Your task to perform on an android device: uninstall "DuckDuckGo Privacy Browser" Image 0: 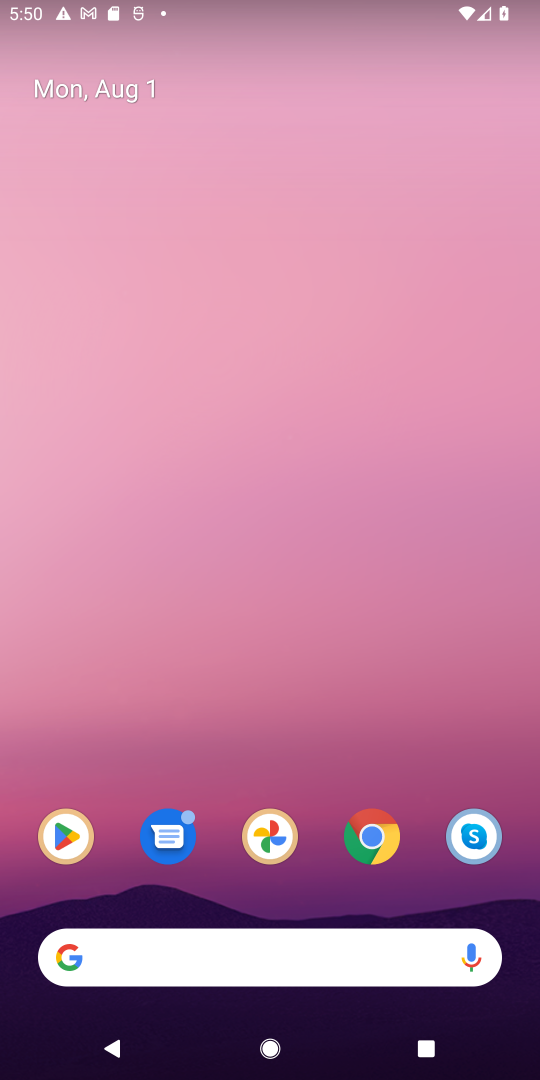
Step 0: press home button
Your task to perform on an android device: uninstall "DuckDuckGo Privacy Browser" Image 1: 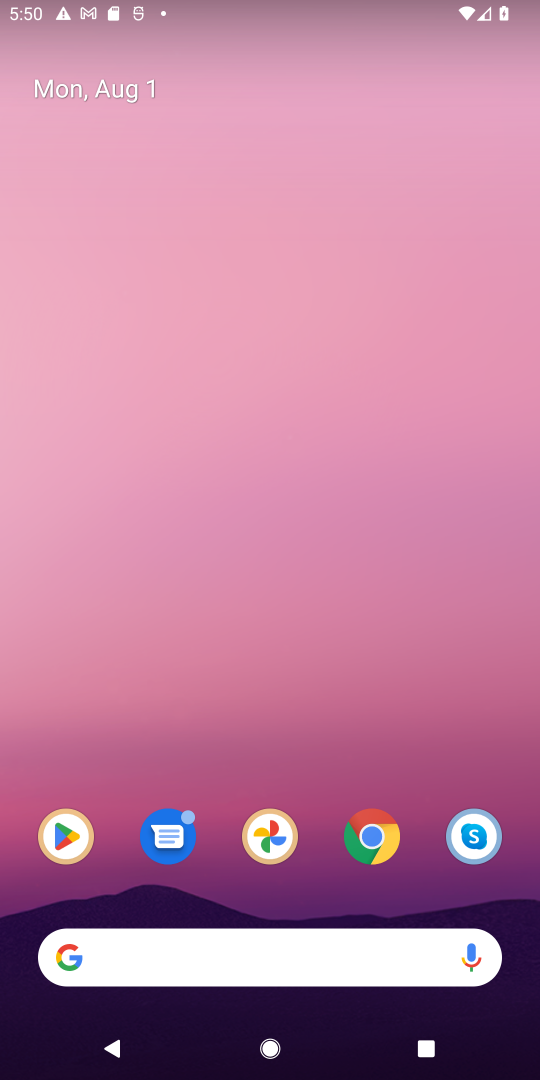
Step 1: click (56, 830)
Your task to perform on an android device: uninstall "DuckDuckGo Privacy Browser" Image 2: 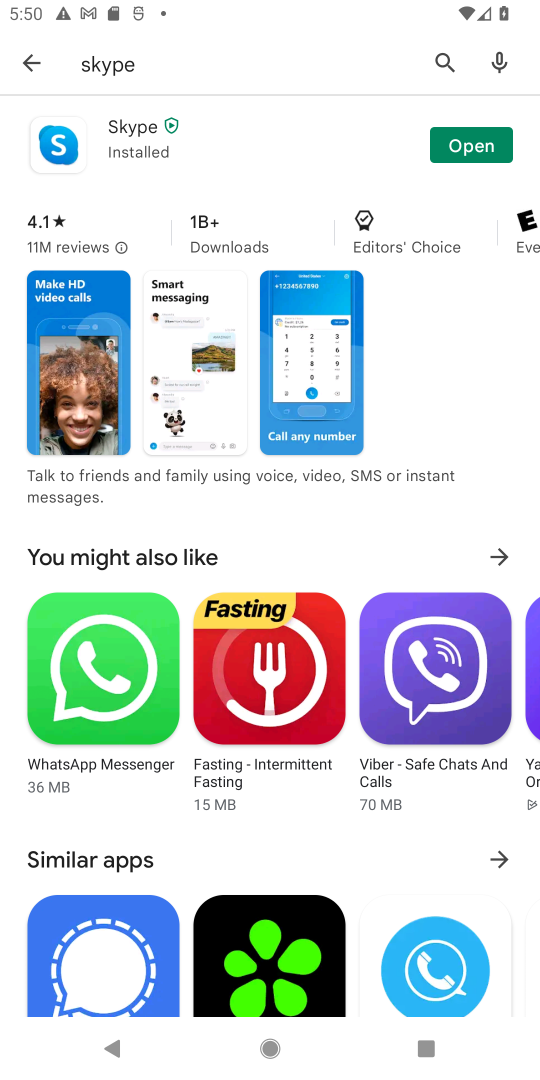
Step 2: click (439, 49)
Your task to perform on an android device: uninstall "DuckDuckGo Privacy Browser" Image 3: 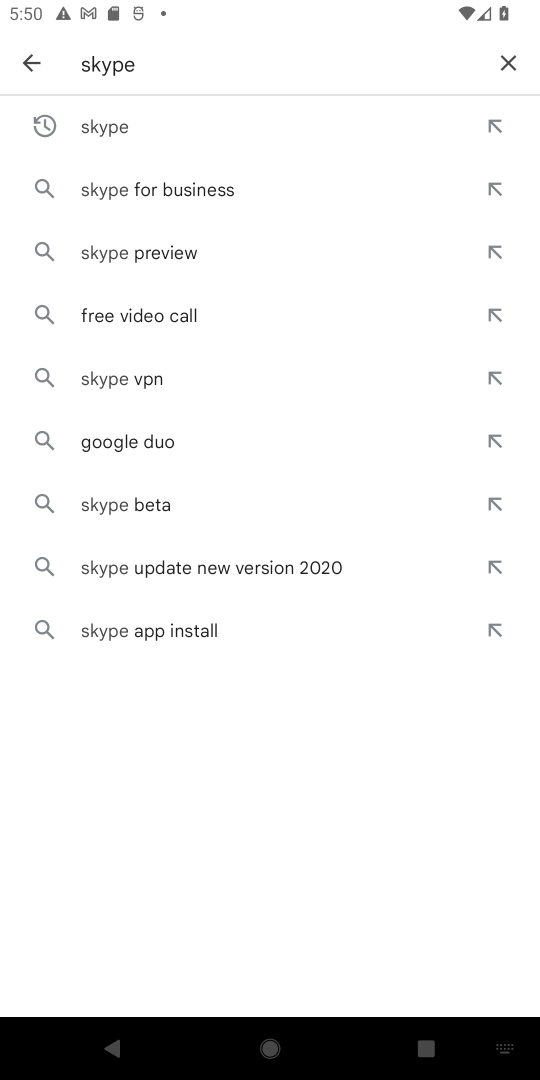
Step 3: click (513, 59)
Your task to perform on an android device: uninstall "DuckDuckGo Privacy Browser" Image 4: 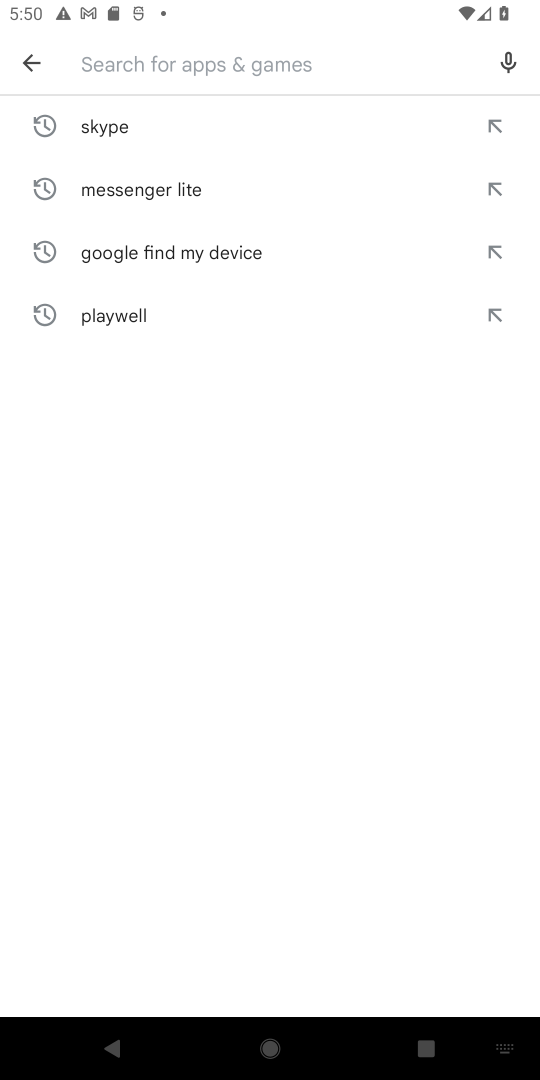
Step 4: type "DuckDuckGo Privacy Browser"
Your task to perform on an android device: uninstall "DuckDuckGo Privacy Browser" Image 5: 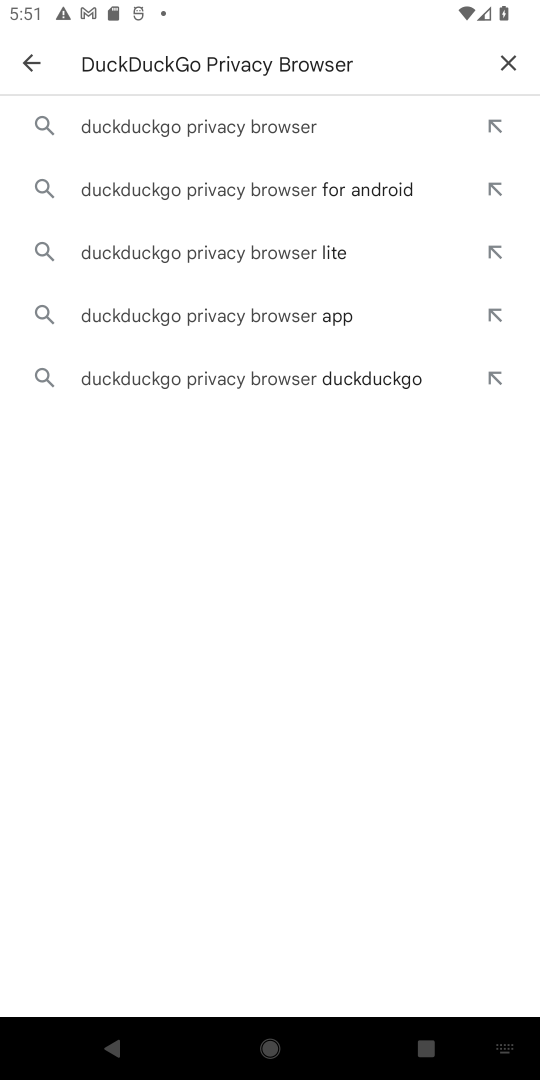
Step 5: click (275, 127)
Your task to perform on an android device: uninstall "DuckDuckGo Privacy Browser" Image 6: 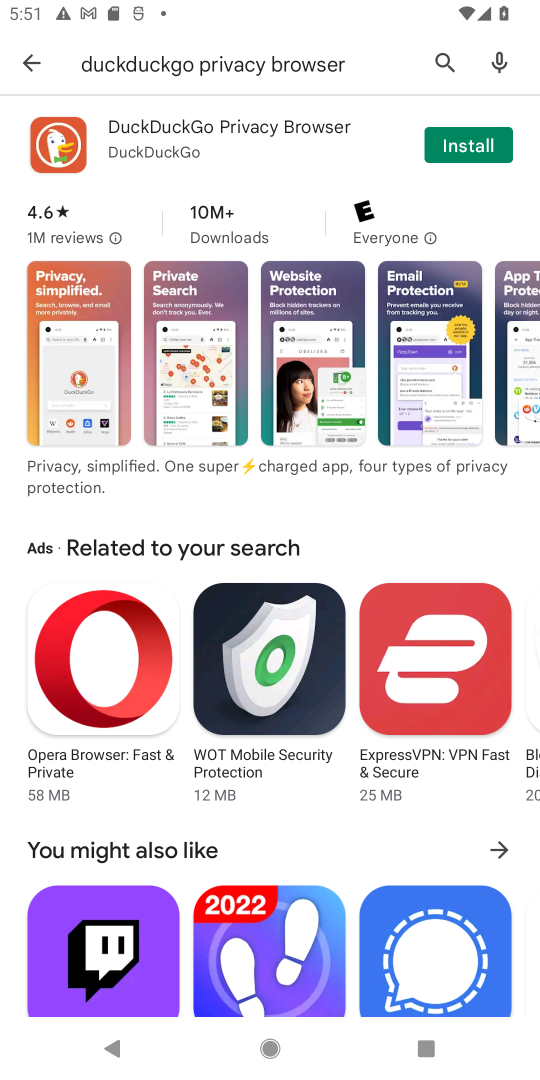
Step 6: task complete